Your task to perform on an android device: Go to calendar. Show me events next week Image 0: 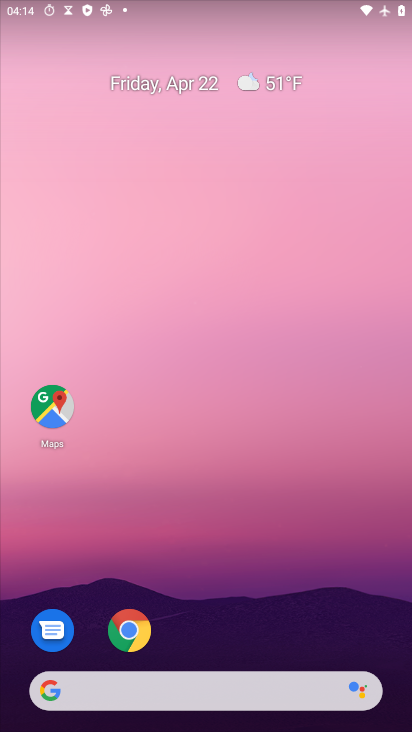
Step 0: drag from (278, 484) to (303, 31)
Your task to perform on an android device: Go to calendar. Show me events next week Image 1: 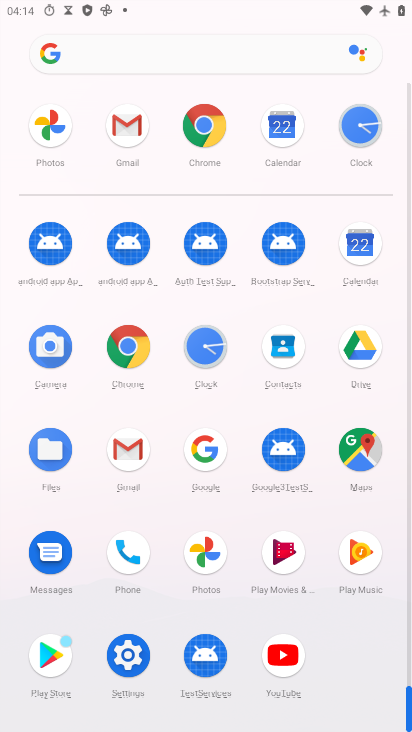
Step 1: drag from (23, 498) to (7, 198)
Your task to perform on an android device: Go to calendar. Show me events next week Image 2: 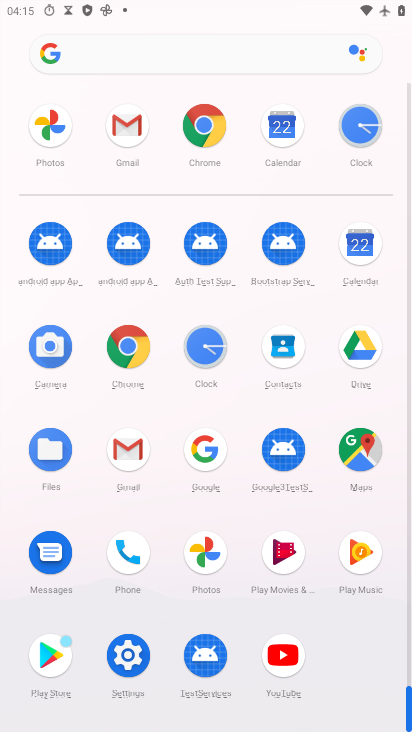
Step 2: click (353, 245)
Your task to perform on an android device: Go to calendar. Show me events next week Image 3: 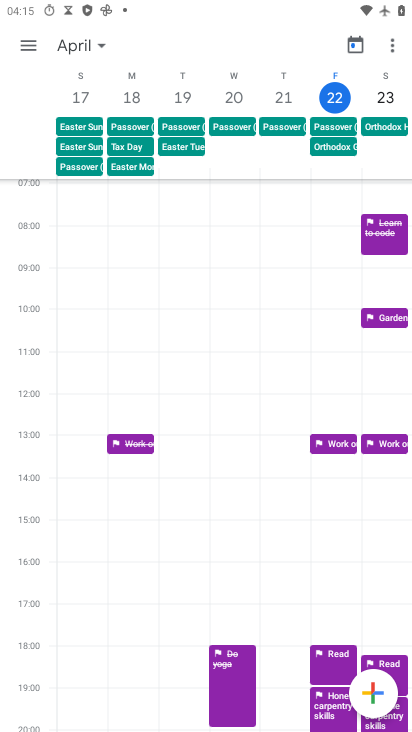
Step 3: drag from (378, 82) to (25, 96)
Your task to perform on an android device: Go to calendar. Show me events next week Image 4: 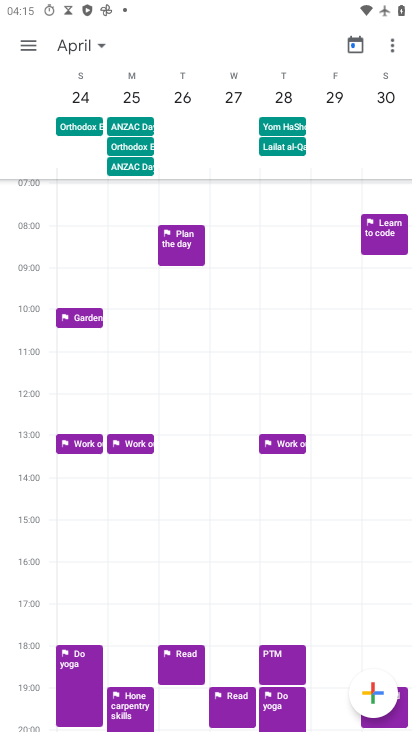
Step 4: drag from (168, 574) to (170, 305)
Your task to perform on an android device: Go to calendar. Show me events next week Image 5: 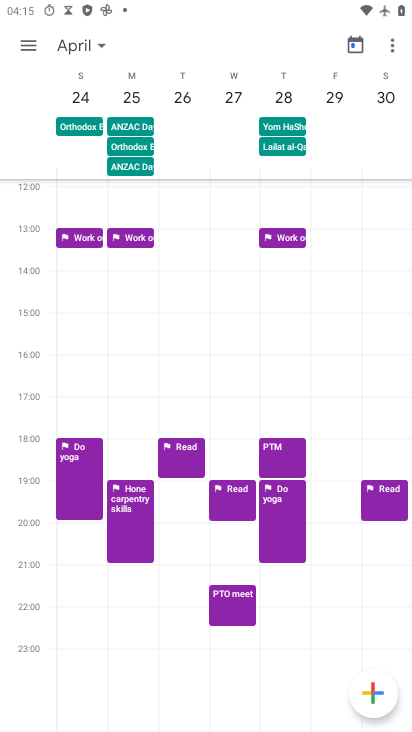
Step 5: drag from (190, 548) to (219, 292)
Your task to perform on an android device: Go to calendar. Show me events next week Image 6: 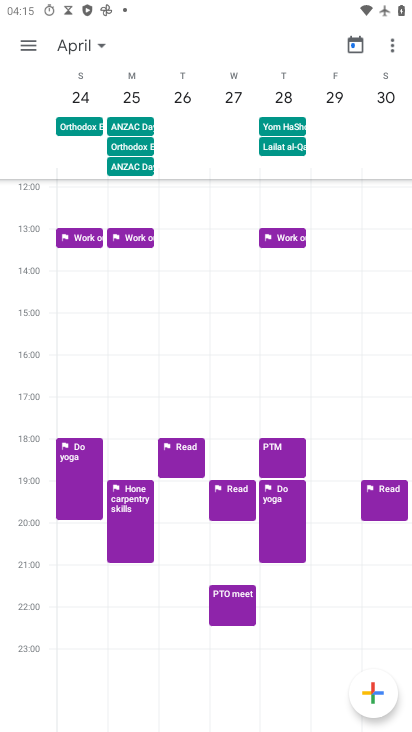
Step 6: drag from (207, 627) to (204, 284)
Your task to perform on an android device: Go to calendar. Show me events next week Image 7: 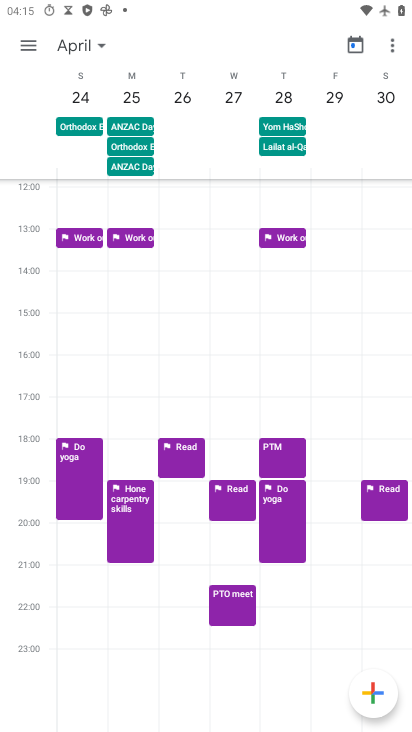
Step 7: drag from (216, 265) to (174, 673)
Your task to perform on an android device: Go to calendar. Show me events next week Image 8: 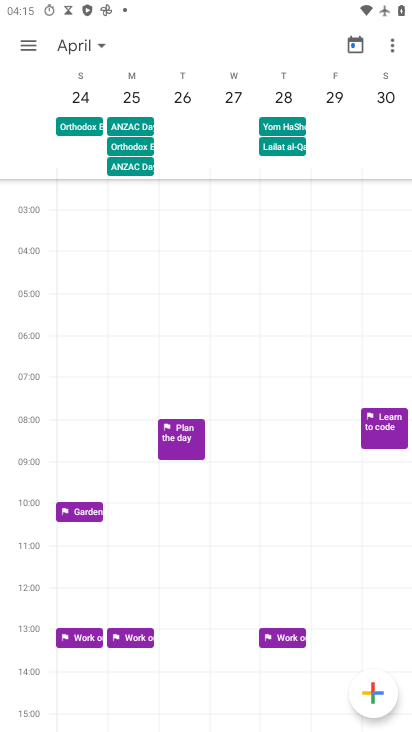
Step 8: click (238, 500)
Your task to perform on an android device: Go to calendar. Show me events next week Image 9: 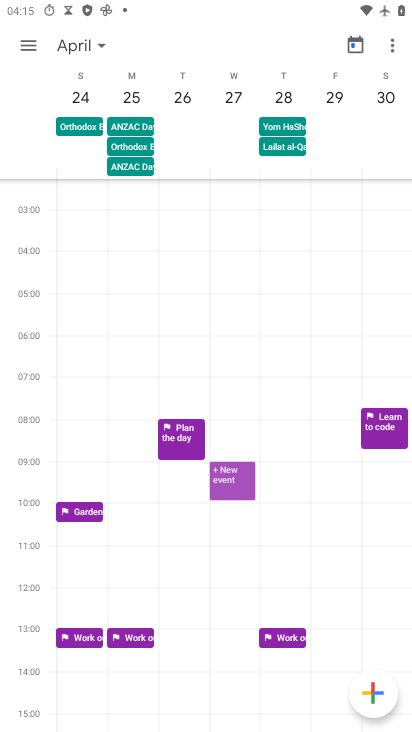
Step 9: task complete